Your task to perform on an android device: show emergency info Image 0: 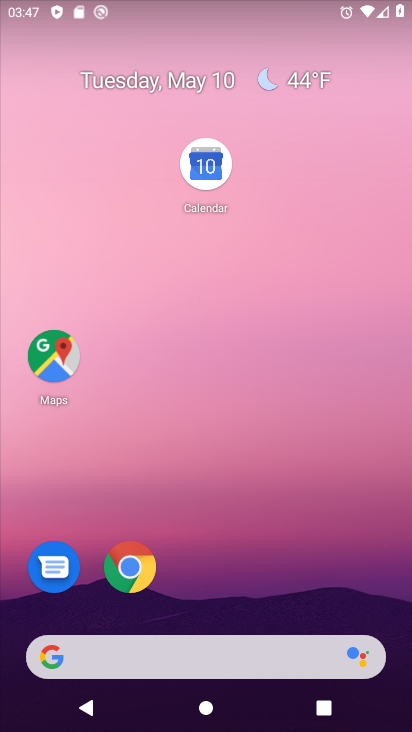
Step 0: drag from (231, 583) to (217, 42)
Your task to perform on an android device: show emergency info Image 1: 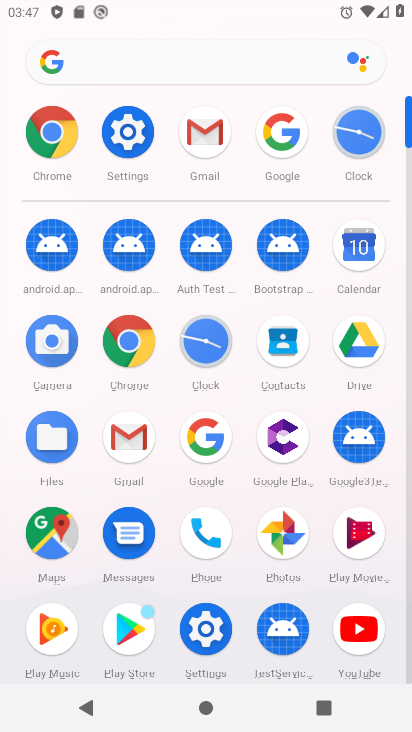
Step 1: click (119, 136)
Your task to perform on an android device: show emergency info Image 2: 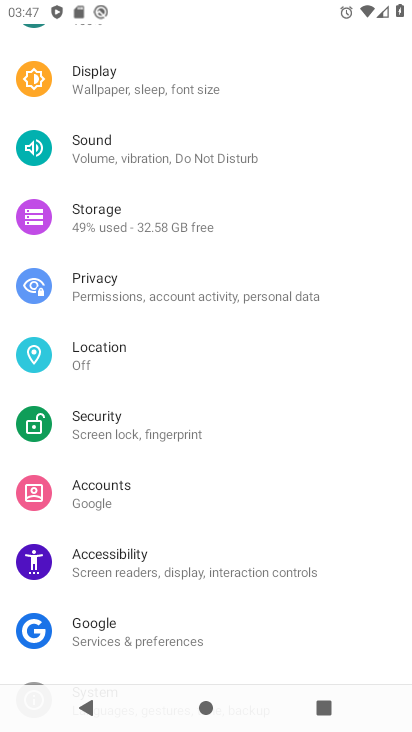
Step 2: drag from (185, 606) to (187, 159)
Your task to perform on an android device: show emergency info Image 3: 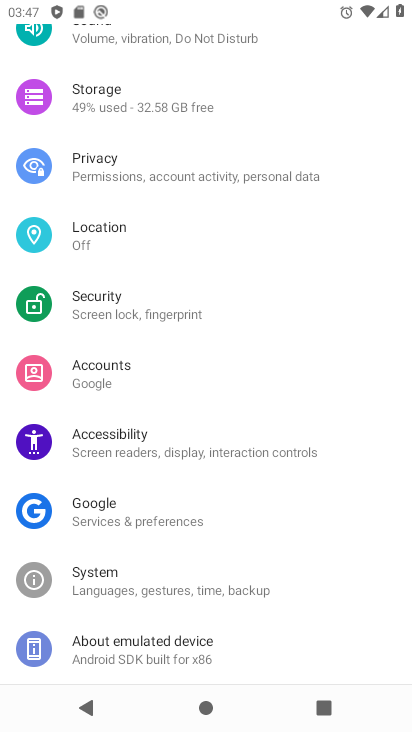
Step 3: click (155, 643)
Your task to perform on an android device: show emergency info Image 4: 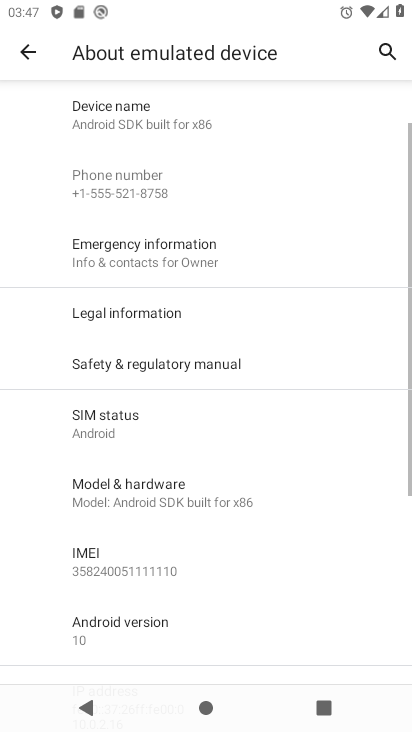
Step 4: click (160, 266)
Your task to perform on an android device: show emergency info Image 5: 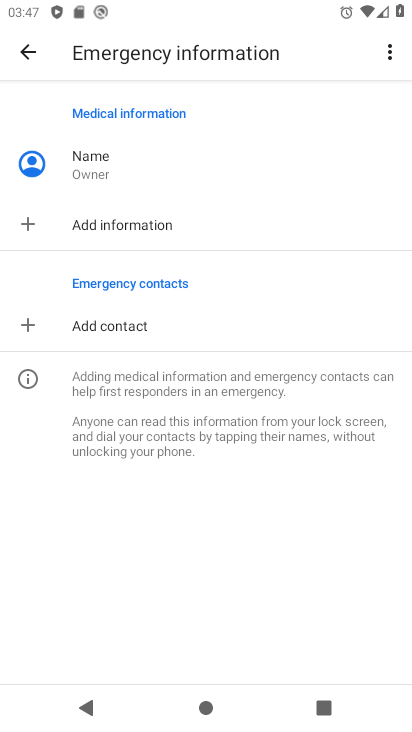
Step 5: task complete